Your task to perform on an android device: turn off translation in the chrome app Image 0: 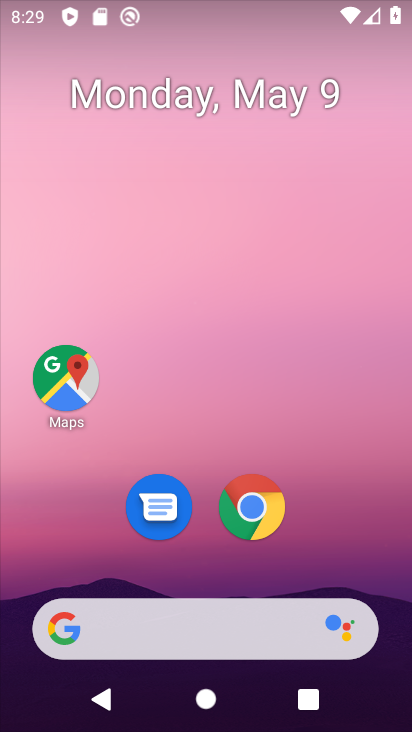
Step 0: click (253, 505)
Your task to perform on an android device: turn off translation in the chrome app Image 1: 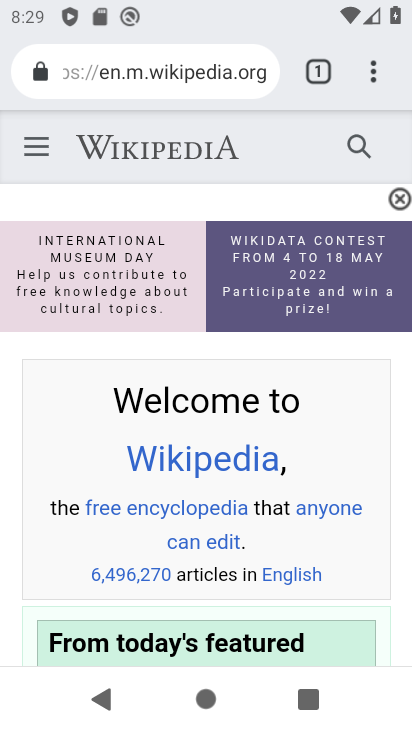
Step 1: click (374, 66)
Your task to perform on an android device: turn off translation in the chrome app Image 2: 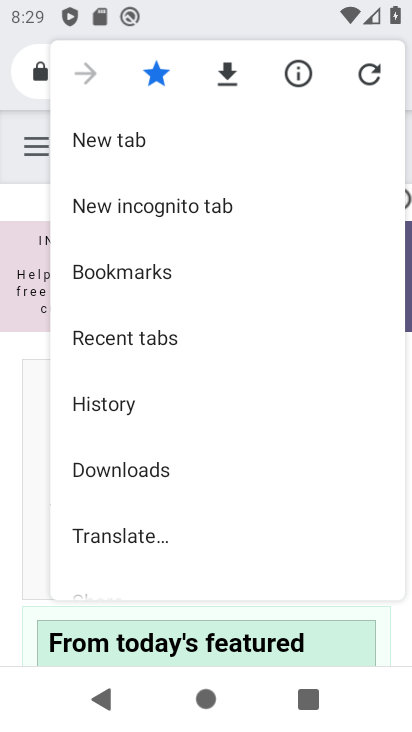
Step 2: drag from (208, 472) to (235, 344)
Your task to perform on an android device: turn off translation in the chrome app Image 3: 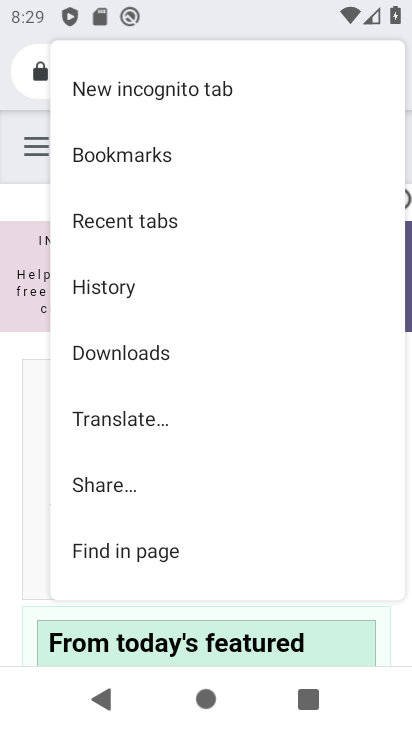
Step 3: drag from (193, 465) to (218, 357)
Your task to perform on an android device: turn off translation in the chrome app Image 4: 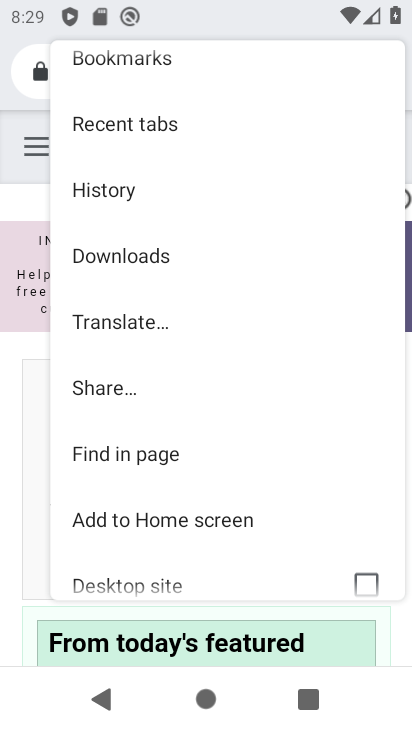
Step 4: drag from (200, 476) to (236, 372)
Your task to perform on an android device: turn off translation in the chrome app Image 5: 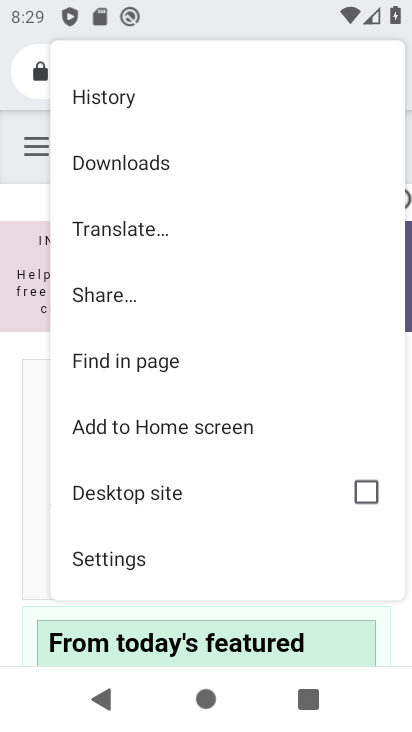
Step 5: drag from (168, 470) to (237, 365)
Your task to perform on an android device: turn off translation in the chrome app Image 6: 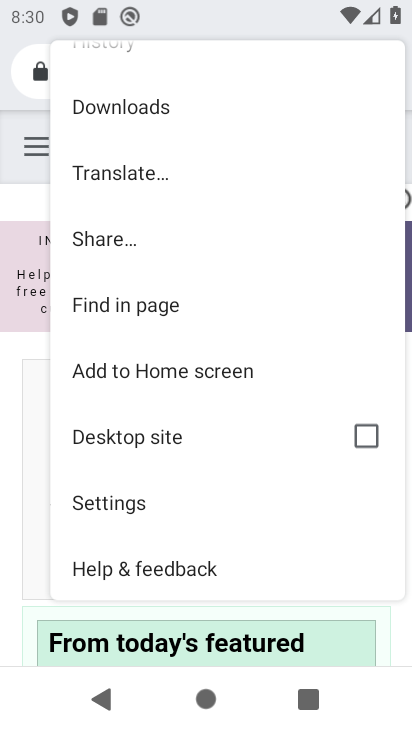
Step 6: drag from (178, 490) to (259, 377)
Your task to perform on an android device: turn off translation in the chrome app Image 7: 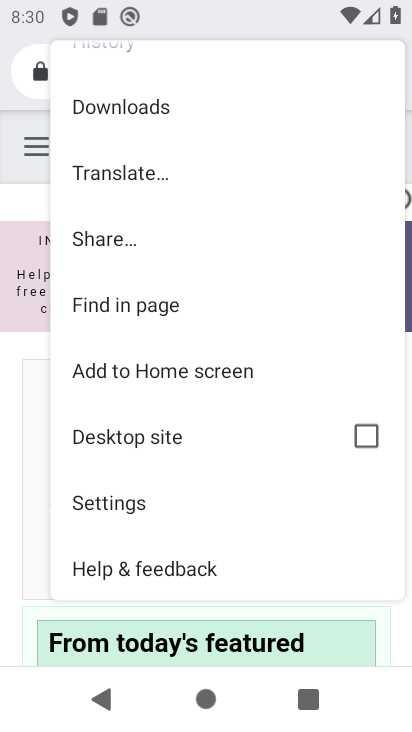
Step 7: click (107, 507)
Your task to perform on an android device: turn off translation in the chrome app Image 8: 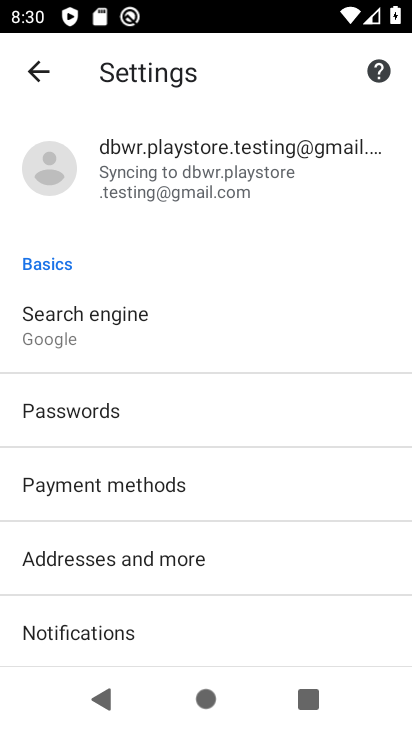
Step 8: drag from (159, 590) to (213, 457)
Your task to perform on an android device: turn off translation in the chrome app Image 9: 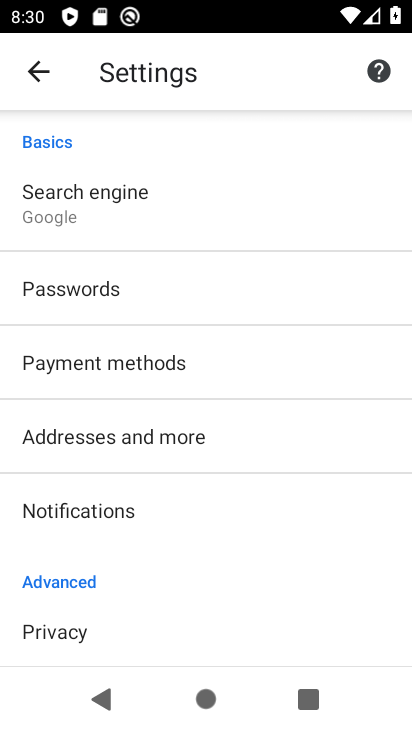
Step 9: drag from (127, 547) to (195, 388)
Your task to perform on an android device: turn off translation in the chrome app Image 10: 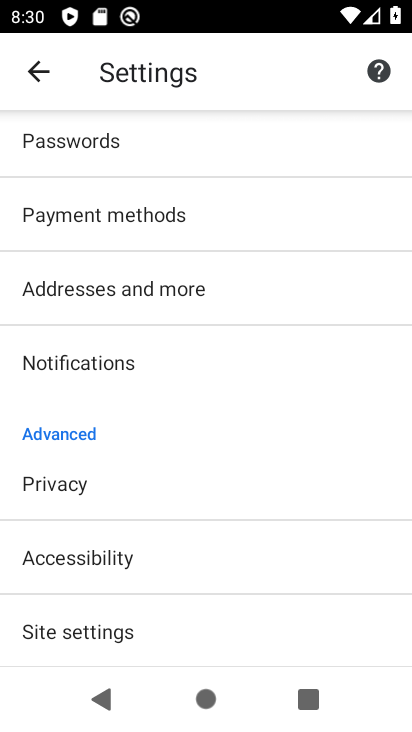
Step 10: drag from (132, 481) to (184, 395)
Your task to perform on an android device: turn off translation in the chrome app Image 11: 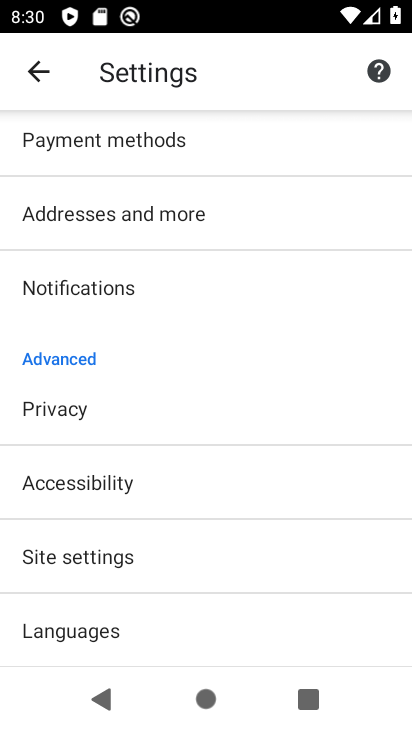
Step 11: drag from (155, 562) to (225, 444)
Your task to perform on an android device: turn off translation in the chrome app Image 12: 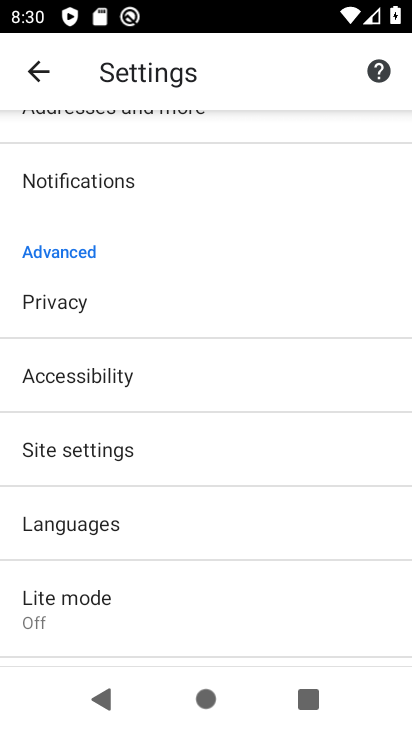
Step 12: click (102, 527)
Your task to perform on an android device: turn off translation in the chrome app Image 13: 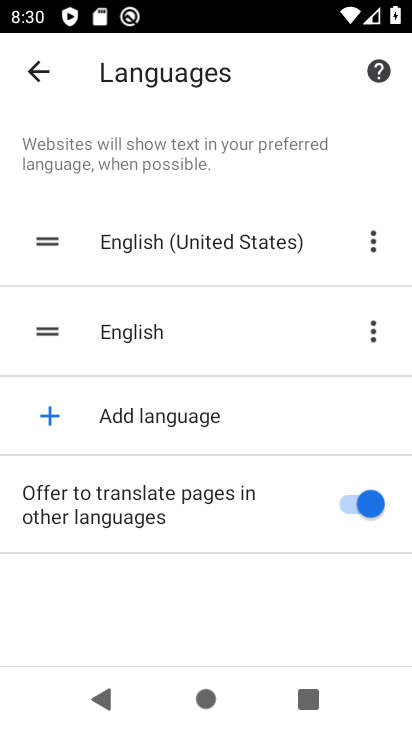
Step 13: click (373, 495)
Your task to perform on an android device: turn off translation in the chrome app Image 14: 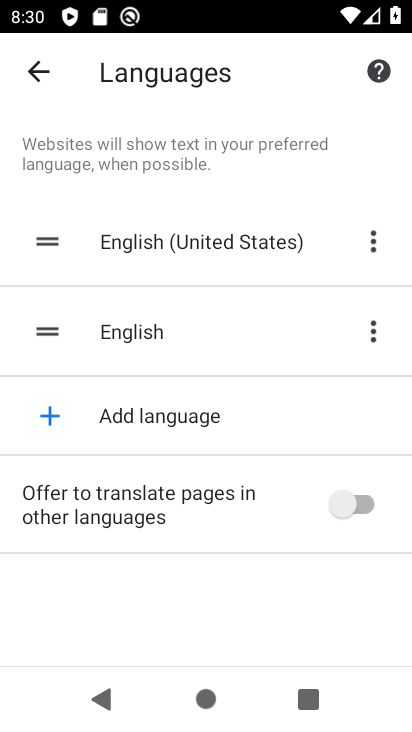
Step 14: task complete